Your task to perform on an android device: open a new tab in the chrome app Image 0: 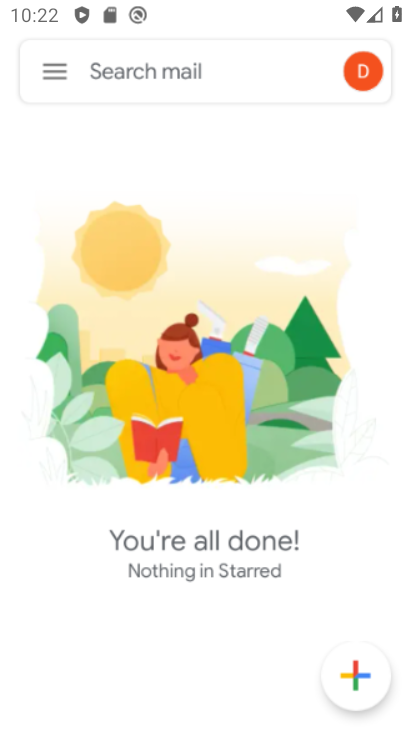
Step 0: press home button
Your task to perform on an android device: open a new tab in the chrome app Image 1: 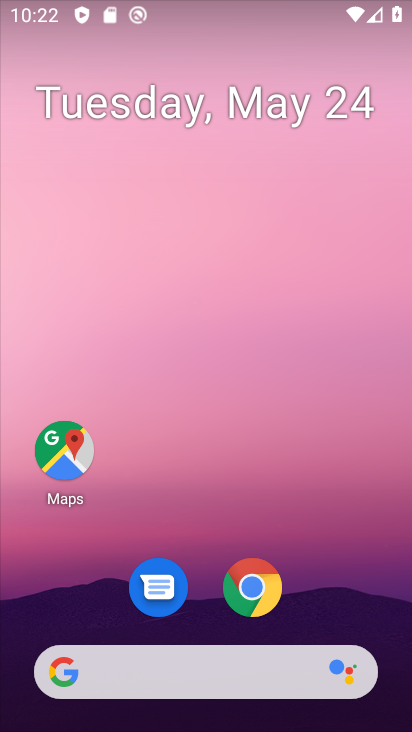
Step 1: click (271, 568)
Your task to perform on an android device: open a new tab in the chrome app Image 2: 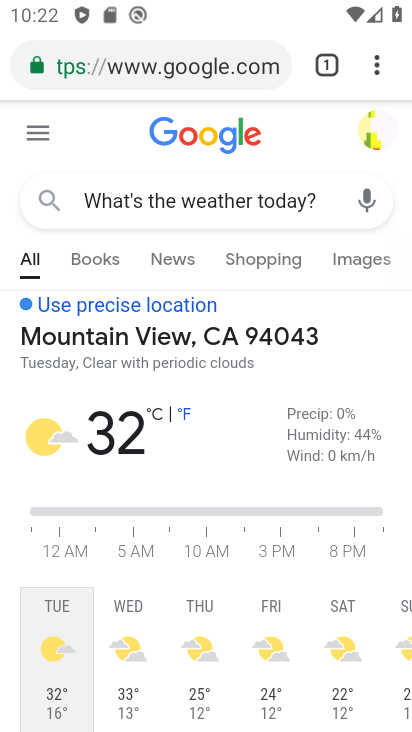
Step 2: task complete